Your task to perform on an android device: Open Android settings Image 0: 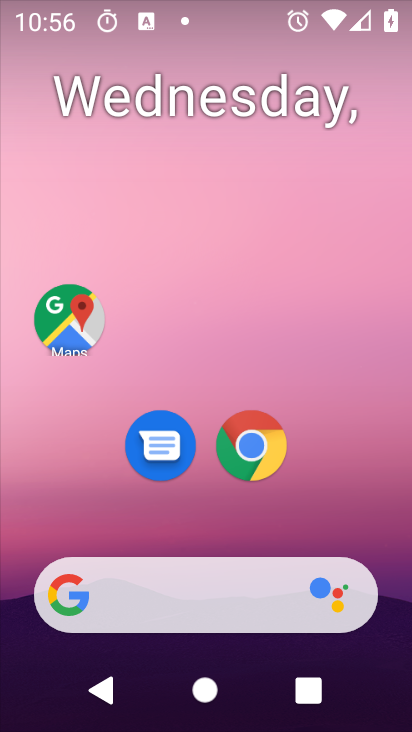
Step 0: drag from (347, 509) to (257, 14)
Your task to perform on an android device: Open Android settings Image 1: 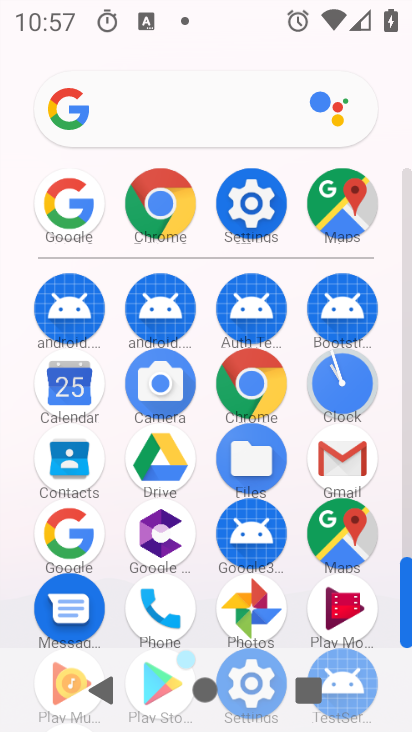
Step 1: click (254, 217)
Your task to perform on an android device: Open Android settings Image 2: 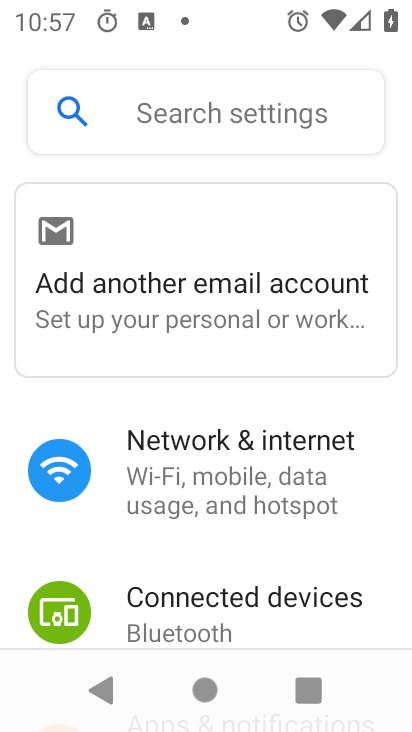
Step 2: task complete